Your task to perform on an android device: turn off airplane mode Image 0: 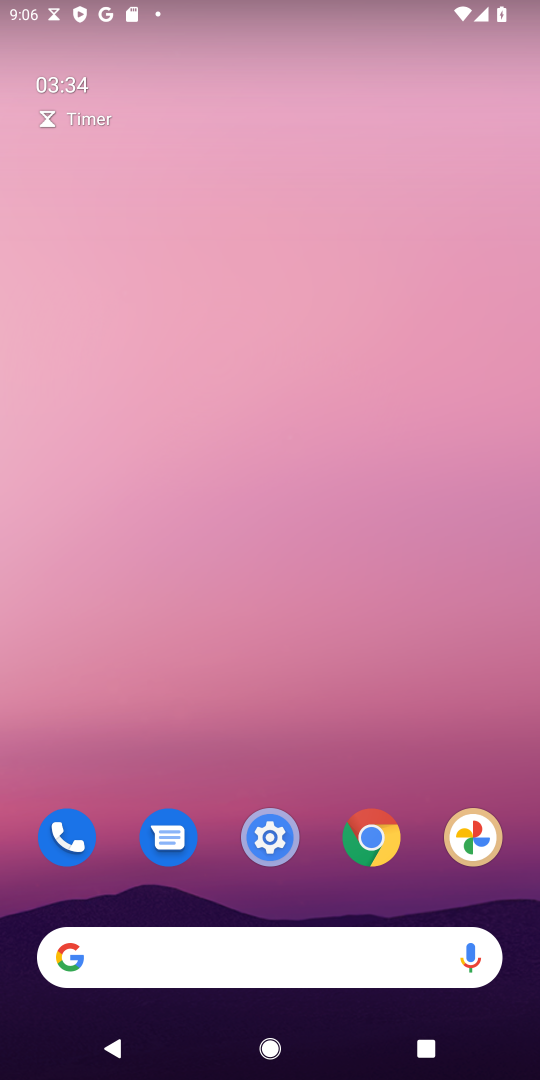
Step 0: drag from (331, 807) to (282, 156)
Your task to perform on an android device: turn off airplane mode Image 1: 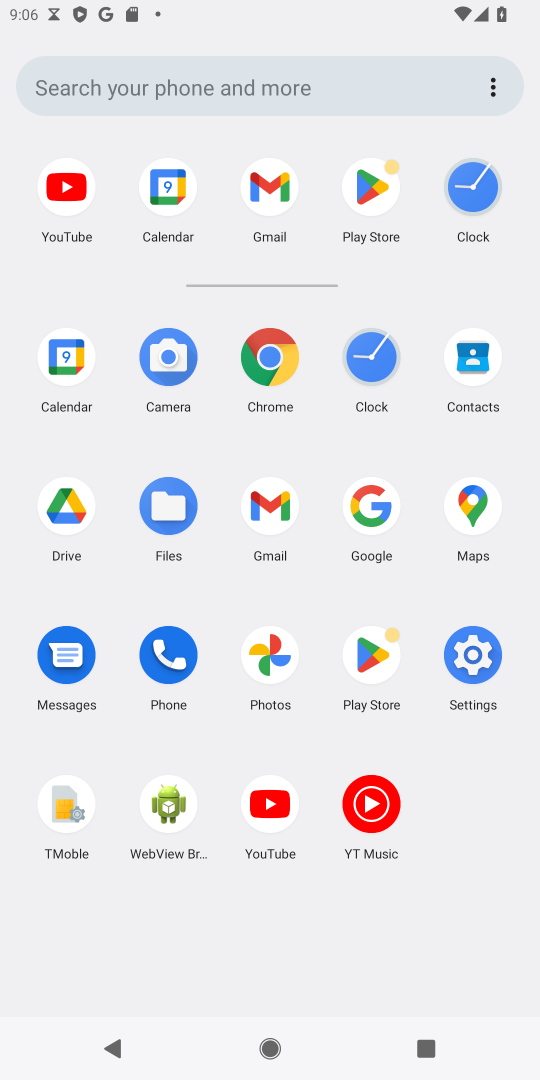
Step 1: click (468, 650)
Your task to perform on an android device: turn off airplane mode Image 2: 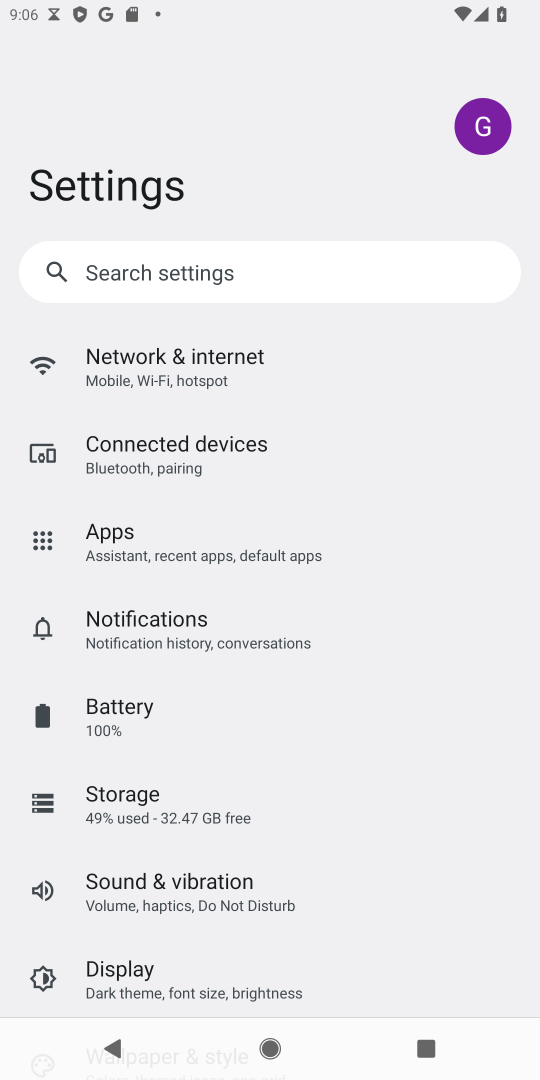
Step 2: click (137, 353)
Your task to perform on an android device: turn off airplane mode Image 3: 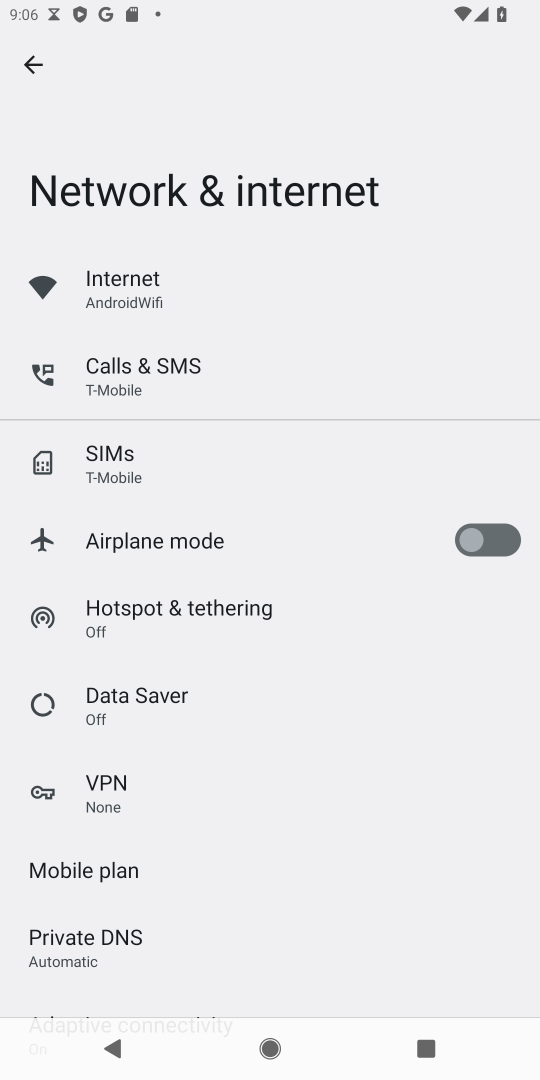
Step 3: task complete